Your task to perform on an android device: Open Chrome and go to settings Image 0: 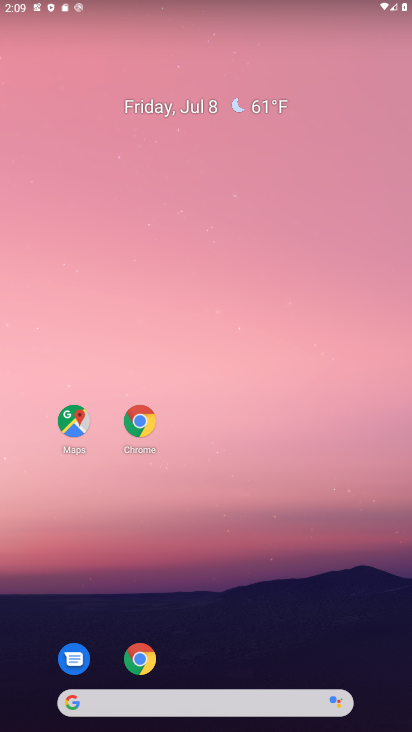
Step 0: drag from (239, 676) to (248, 114)
Your task to perform on an android device: Open Chrome and go to settings Image 1: 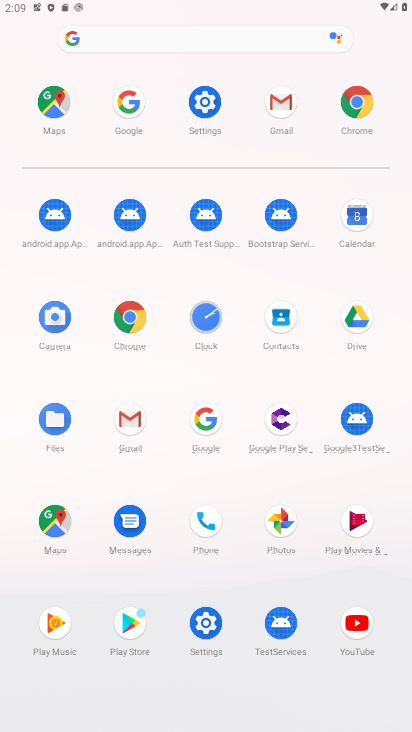
Step 1: click (207, 124)
Your task to perform on an android device: Open Chrome and go to settings Image 2: 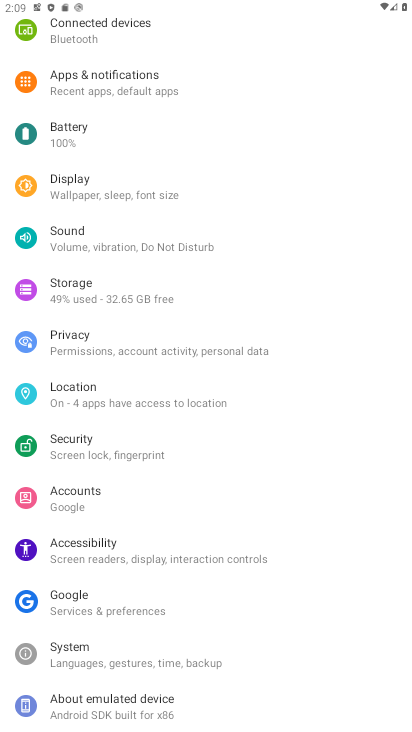
Step 2: task complete